Your task to perform on an android device: Go to calendar. Show me events next week Image 0: 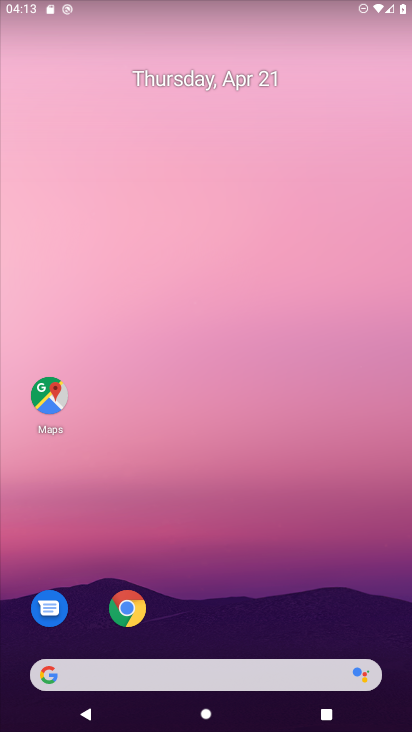
Step 0: drag from (211, 618) to (238, 241)
Your task to perform on an android device: Go to calendar. Show me events next week Image 1: 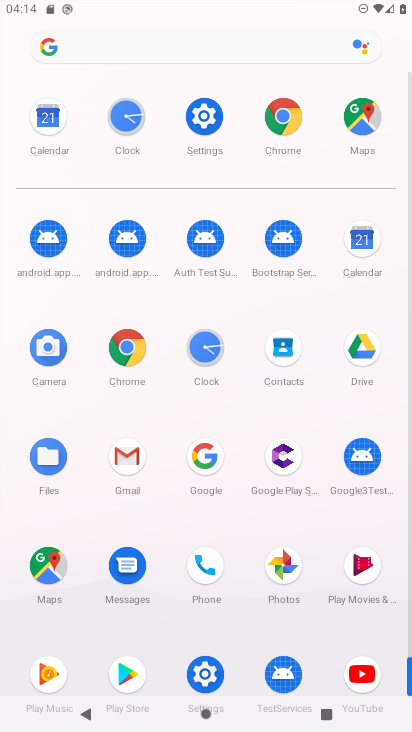
Step 1: click (359, 236)
Your task to perform on an android device: Go to calendar. Show me events next week Image 2: 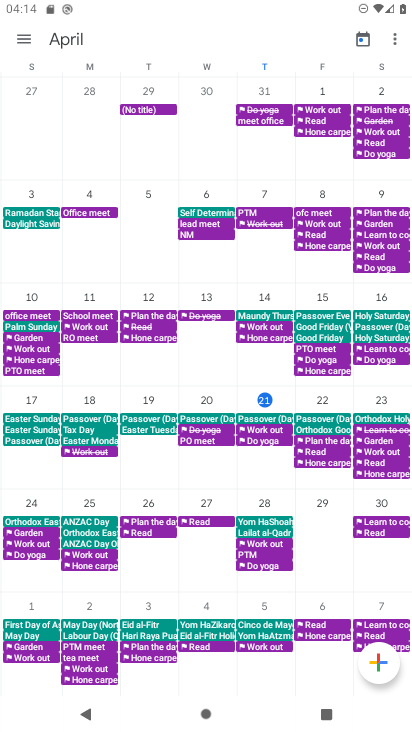
Step 2: click (268, 524)
Your task to perform on an android device: Go to calendar. Show me events next week Image 3: 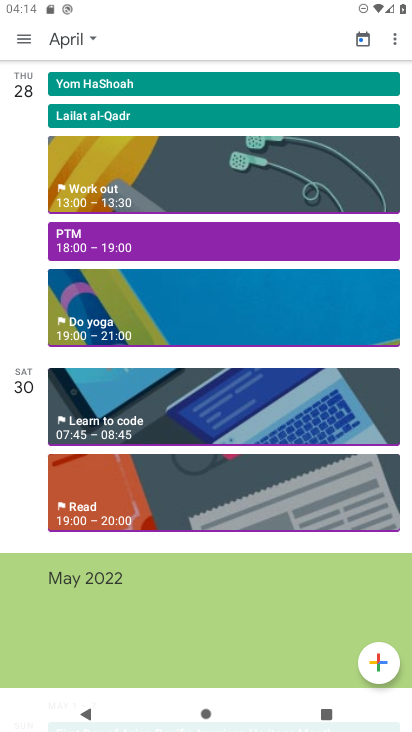
Step 3: task complete